Your task to perform on an android device: Open eBay Image 0: 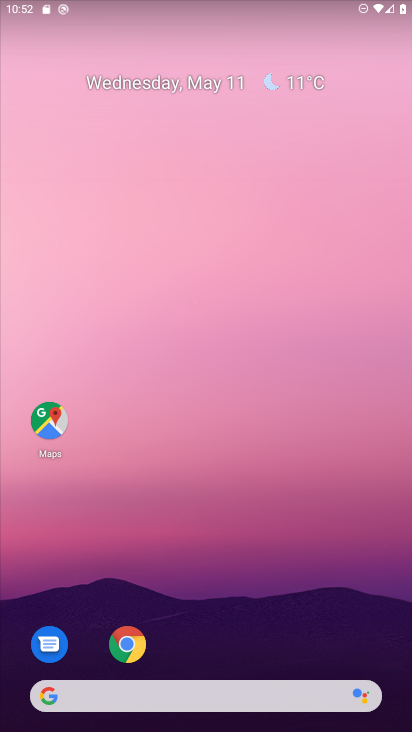
Step 0: press home button
Your task to perform on an android device: Open eBay Image 1: 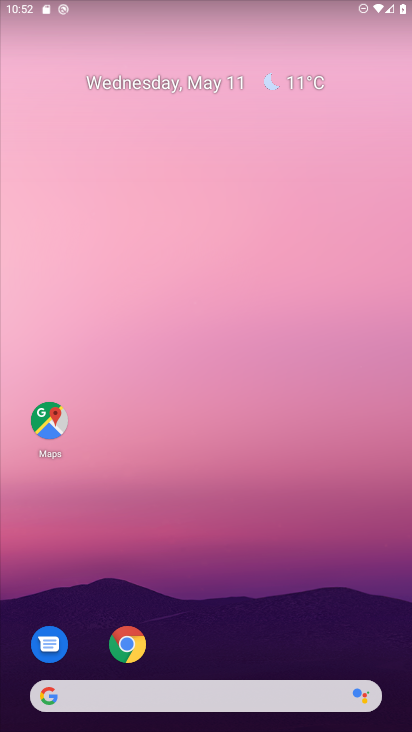
Step 1: click (136, 636)
Your task to perform on an android device: Open eBay Image 2: 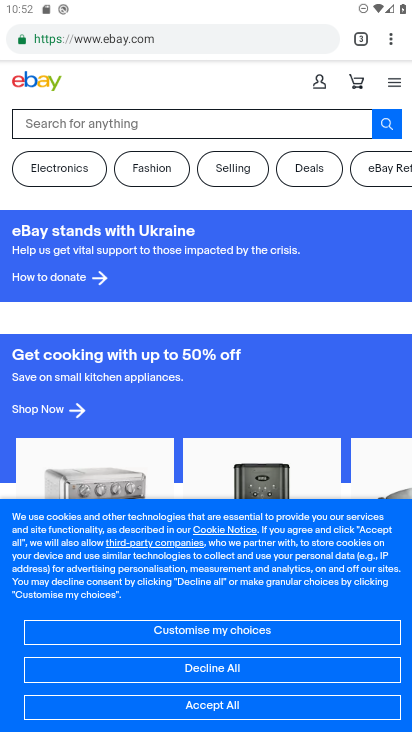
Step 2: task complete